Your task to perform on an android device: What's the weather today? Image 0: 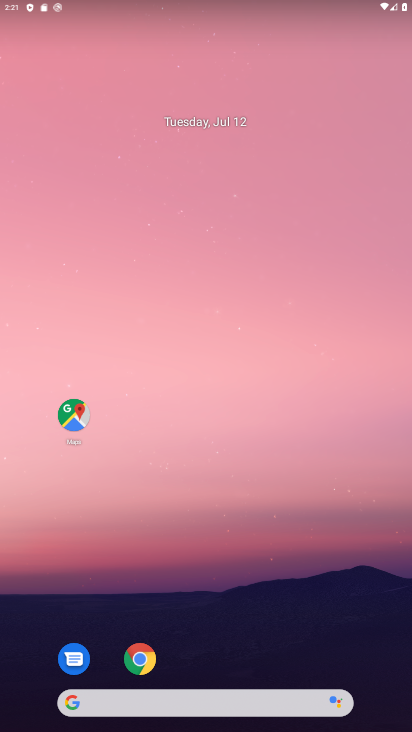
Step 0: drag from (154, 693) to (189, 376)
Your task to perform on an android device: What's the weather today? Image 1: 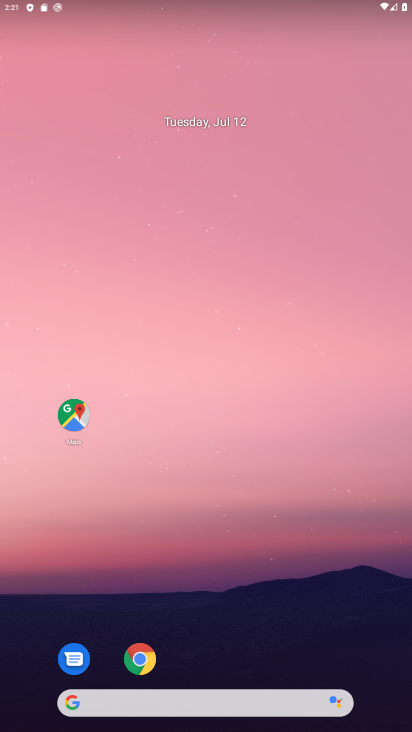
Step 1: drag from (223, 681) to (253, 168)
Your task to perform on an android device: What's the weather today? Image 2: 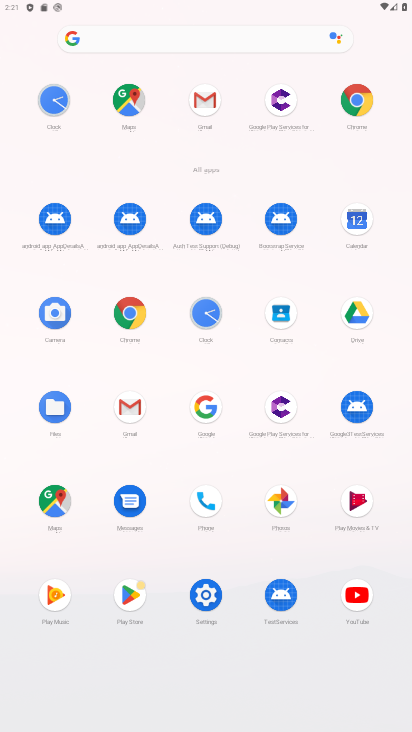
Step 2: click (203, 410)
Your task to perform on an android device: What's the weather today? Image 3: 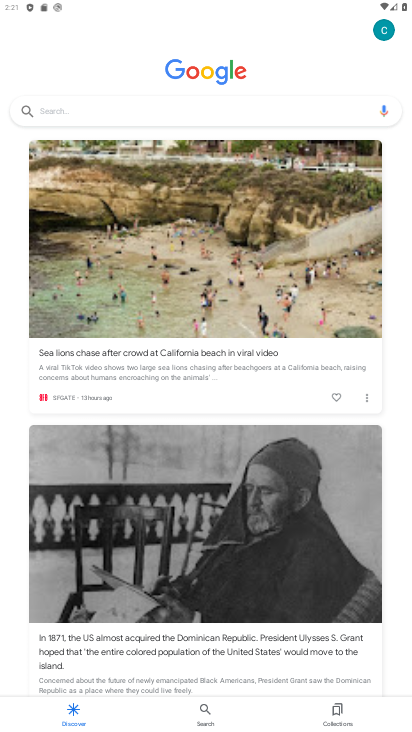
Step 3: click (99, 108)
Your task to perform on an android device: What's the weather today? Image 4: 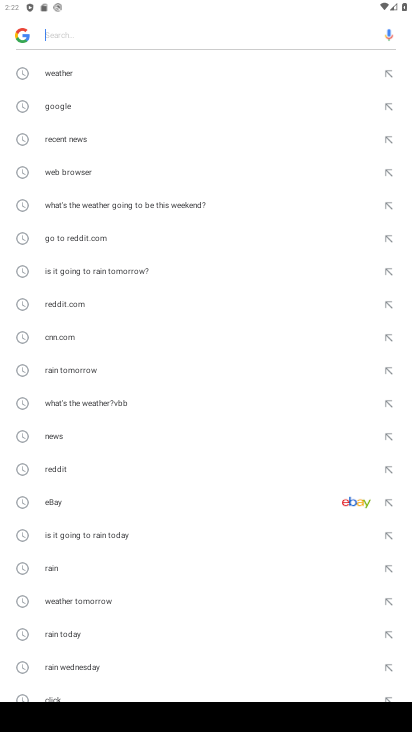
Step 4: click (64, 75)
Your task to perform on an android device: What's the weather today? Image 5: 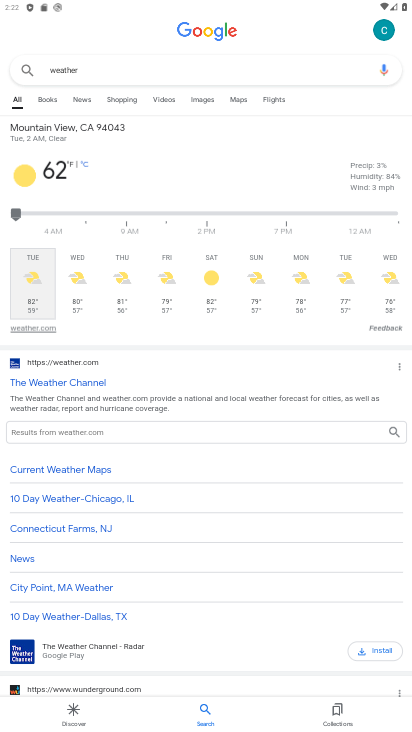
Step 5: task complete